Your task to perform on an android device: Open Amazon Image 0: 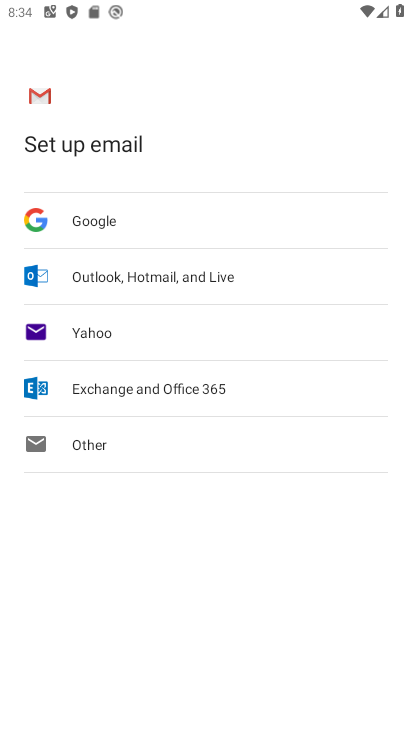
Step 0: press home button
Your task to perform on an android device: Open Amazon Image 1: 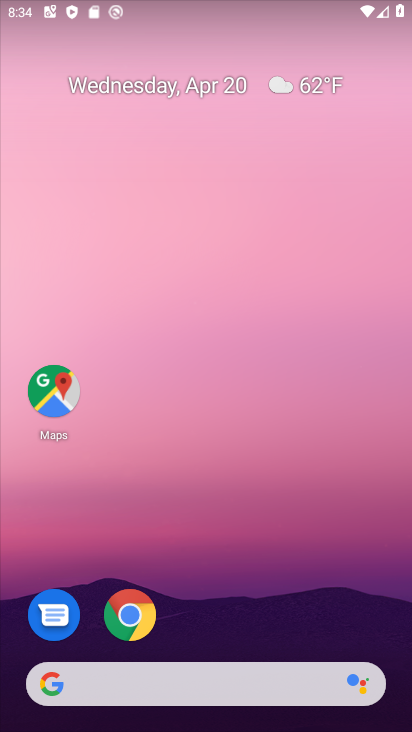
Step 1: drag from (201, 661) to (353, 65)
Your task to perform on an android device: Open Amazon Image 2: 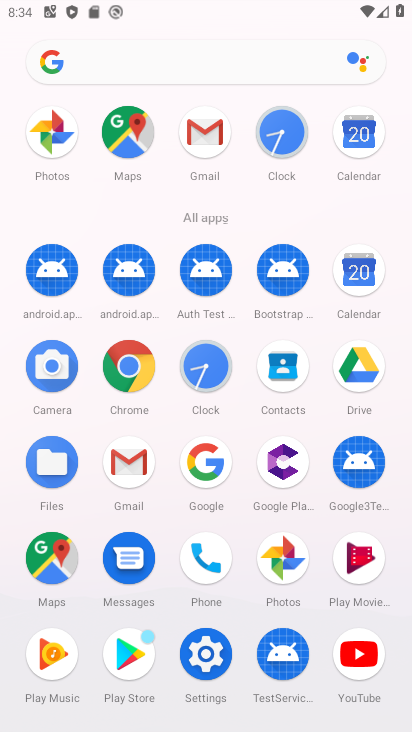
Step 2: click (122, 373)
Your task to perform on an android device: Open Amazon Image 3: 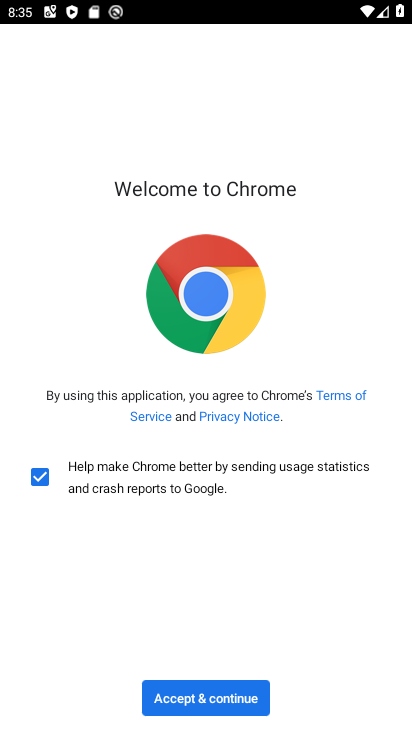
Step 3: click (209, 703)
Your task to perform on an android device: Open Amazon Image 4: 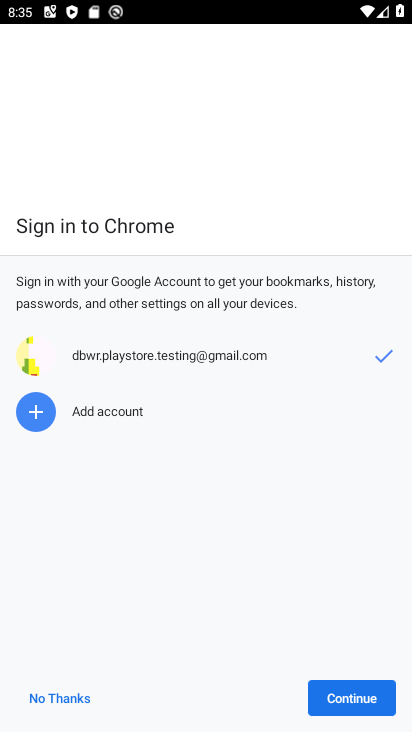
Step 4: click (331, 698)
Your task to perform on an android device: Open Amazon Image 5: 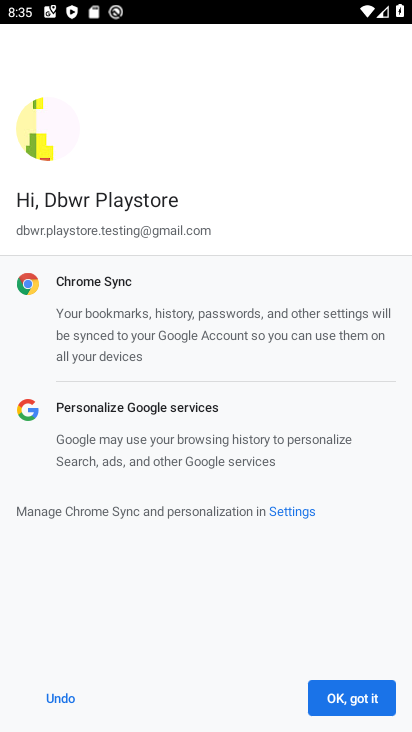
Step 5: click (356, 699)
Your task to perform on an android device: Open Amazon Image 6: 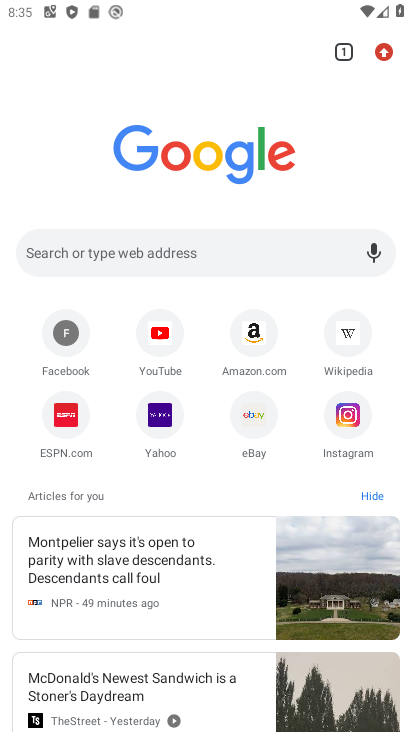
Step 6: click (257, 333)
Your task to perform on an android device: Open Amazon Image 7: 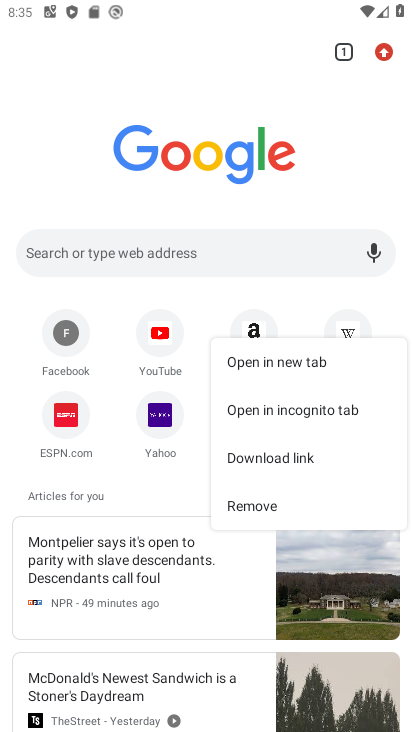
Step 7: click (248, 331)
Your task to perform on an android device: Open Amazon Image 8: 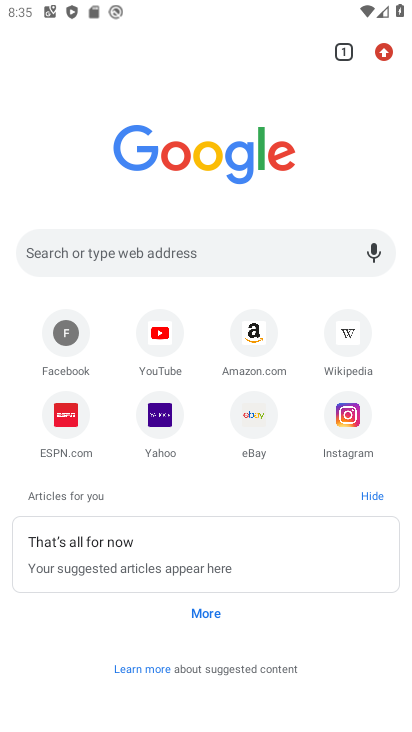
Step 8: click (252, 337)
Your task to perform on an android device: Open Amazon Image 9: 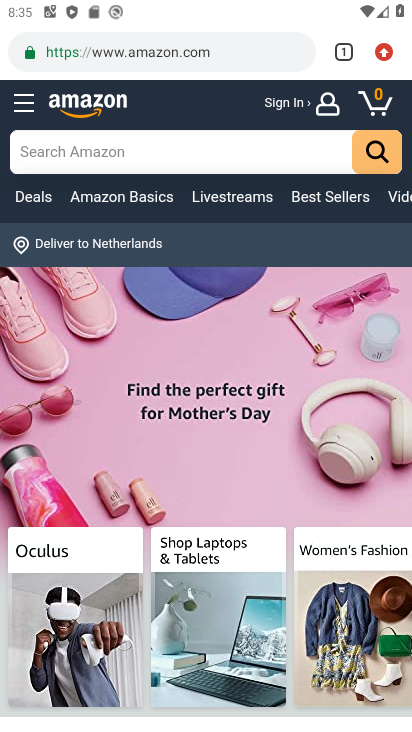
Step 9: task complete